Your task to perform on an android device: choose inbox layout in the gmail app Image 0: 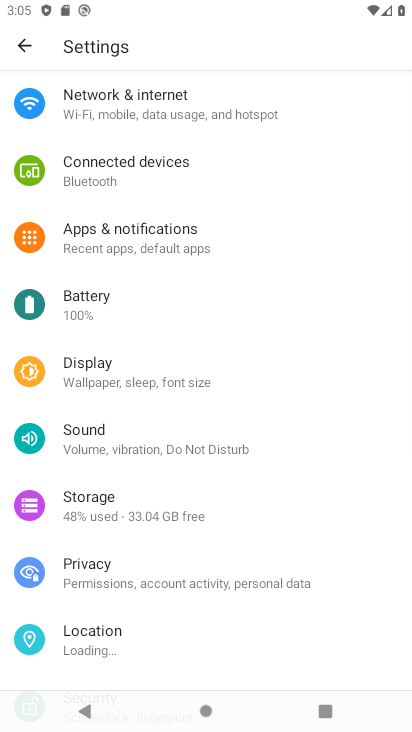
Step 0: press back button
Your task to perform on an android device: choose inbox layout in the gmail app Image 1: 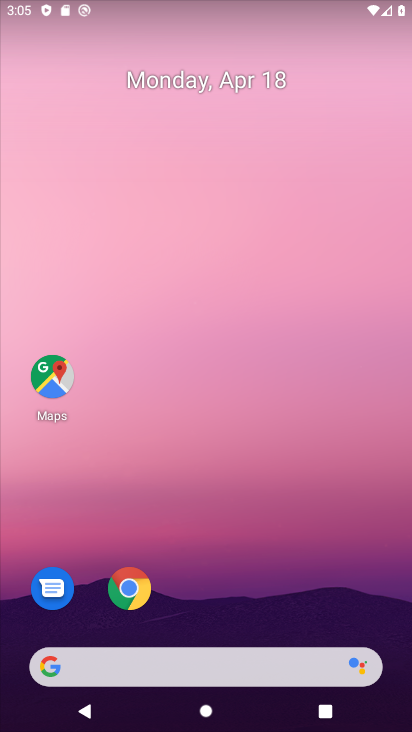
Step 1: drag from (182, 533) to (246, 145)
Your task to perform on an android device: choose inbox layout in the gmail app Image 2: 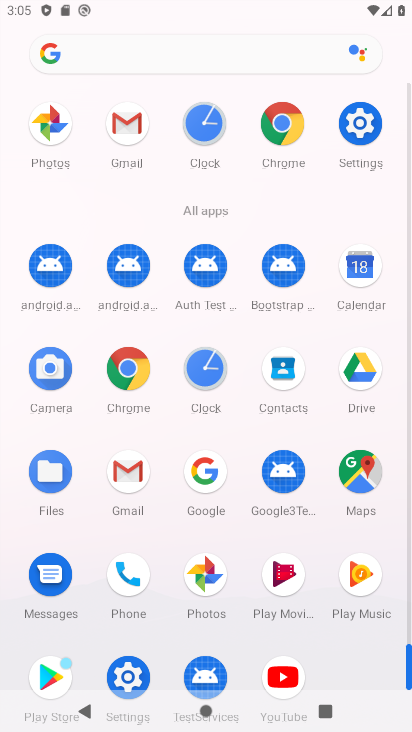
Step 2: click (137, 480)
Your task to perform on an android device: choose inbox layout in the gmail app Image 3: 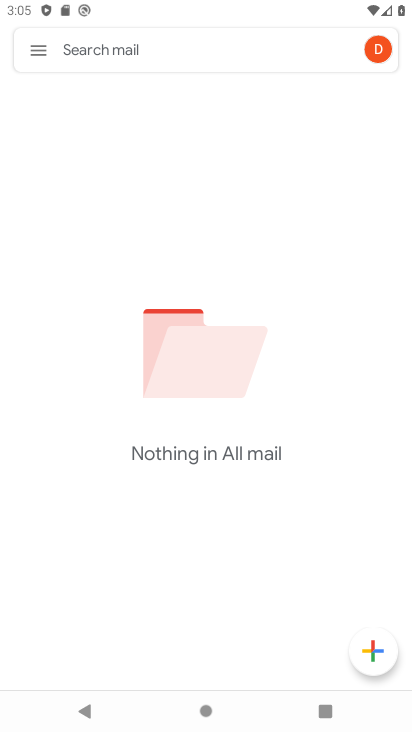
Step 3: click (37, 52)
Your task to perform on an android device: choose inbox layout in the gmail app Image 4: 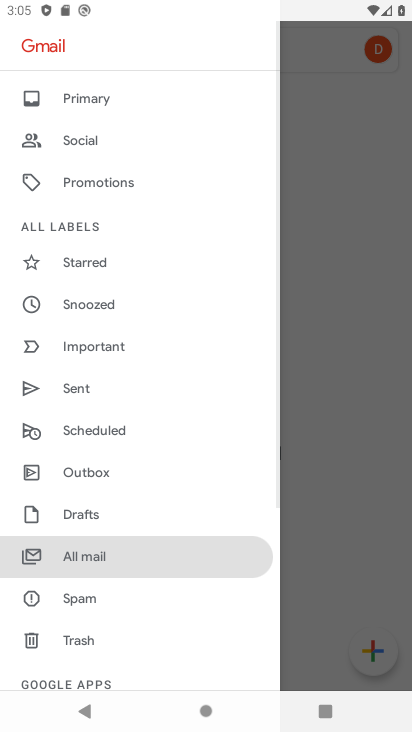
Step 4: drag from (134, 532) to (205, 208)
Your task to perform on an android device: choose inbox layout in the gmail app Image 5: 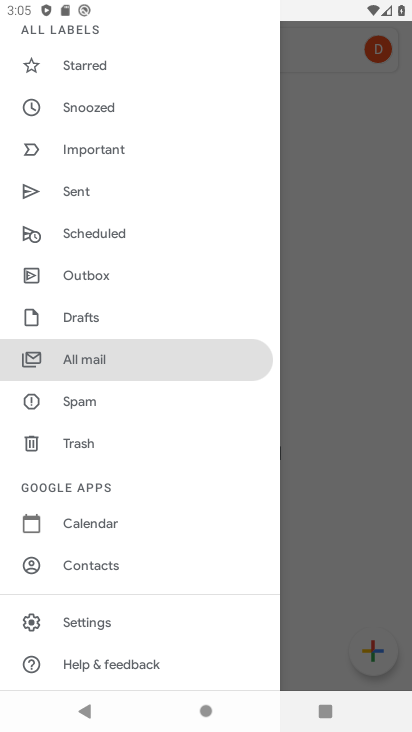
Step 5: click (127, 625)
Your task to perform on an android device: choose inbox layout in the gmail app Image 6: 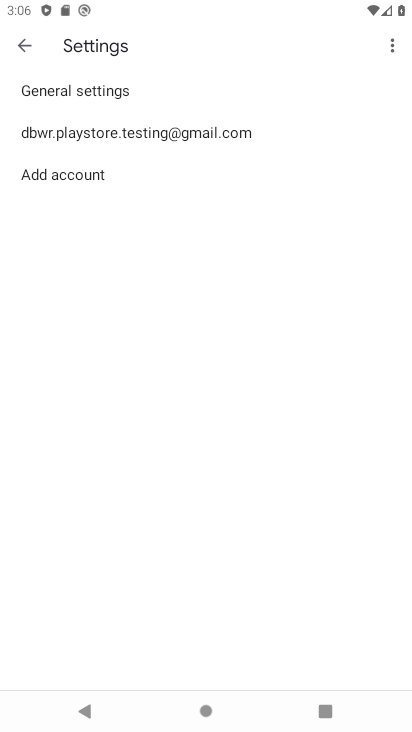
Step 6: click (240, 135)
Your task to perform on an android device: choose inbox layout in the gmail app Image 7: 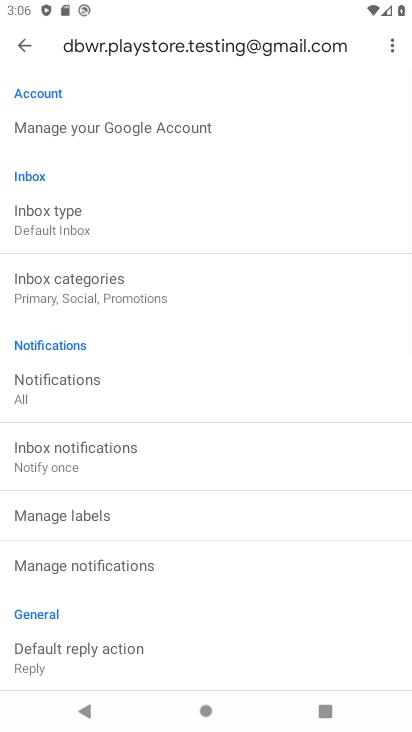
Step 7: click (143, 238)
Your task to perform on an android device: choose inbox layout in the gmail app Image 8: 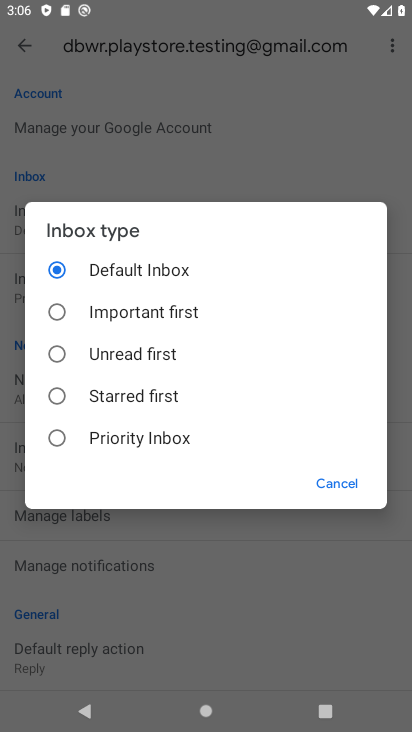
Step 8: click (180, 445)
Your task to perform on an android device: choose inbox layout in the gmail app Image 9: 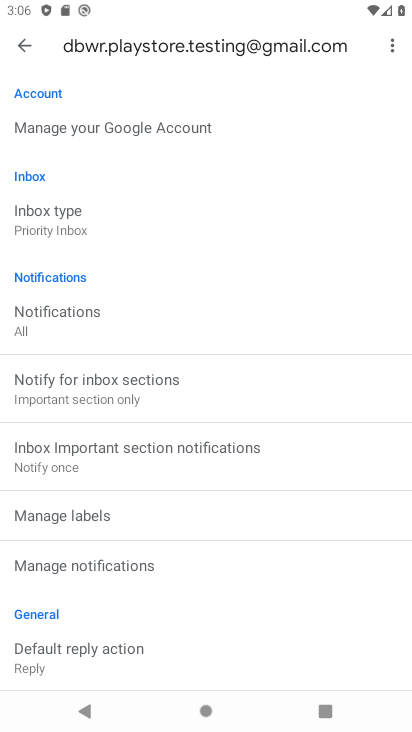
Step 9: task complete